Your task to perform on an android device: Open the phone app and click the voicemail tab. Image 0: 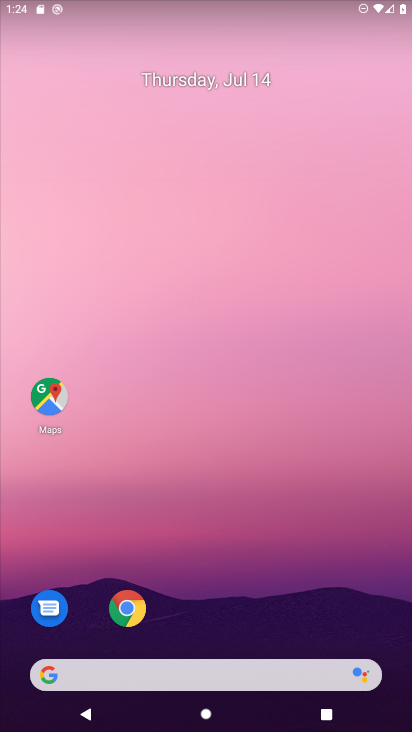
Step 0: drag from (249, 727) to (199, 110)
Your task to perform on an android device: Open the phone app and click the voicemail tab. Image 1: 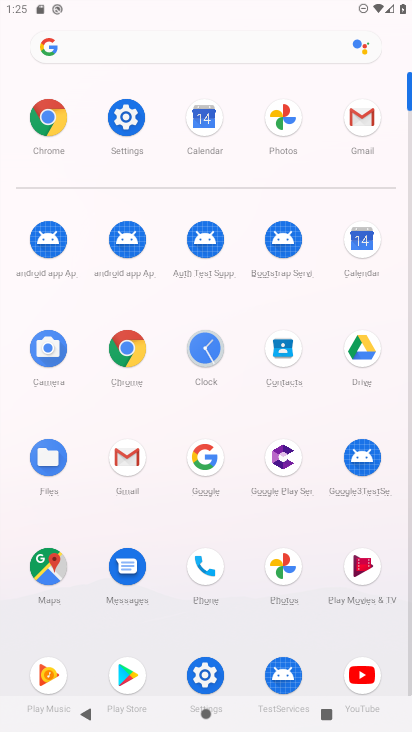
Step 1: click (195, 564)
Your task to perform on an android device: Open the phone app and click the voicemail tab. Image 2: 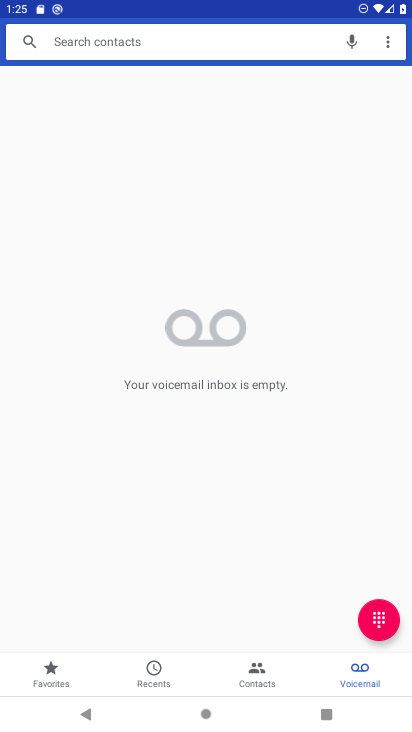
Step 2: task complete